Your task to perform on an android device: uninstall "WhatsApp Messenger" Image 0: 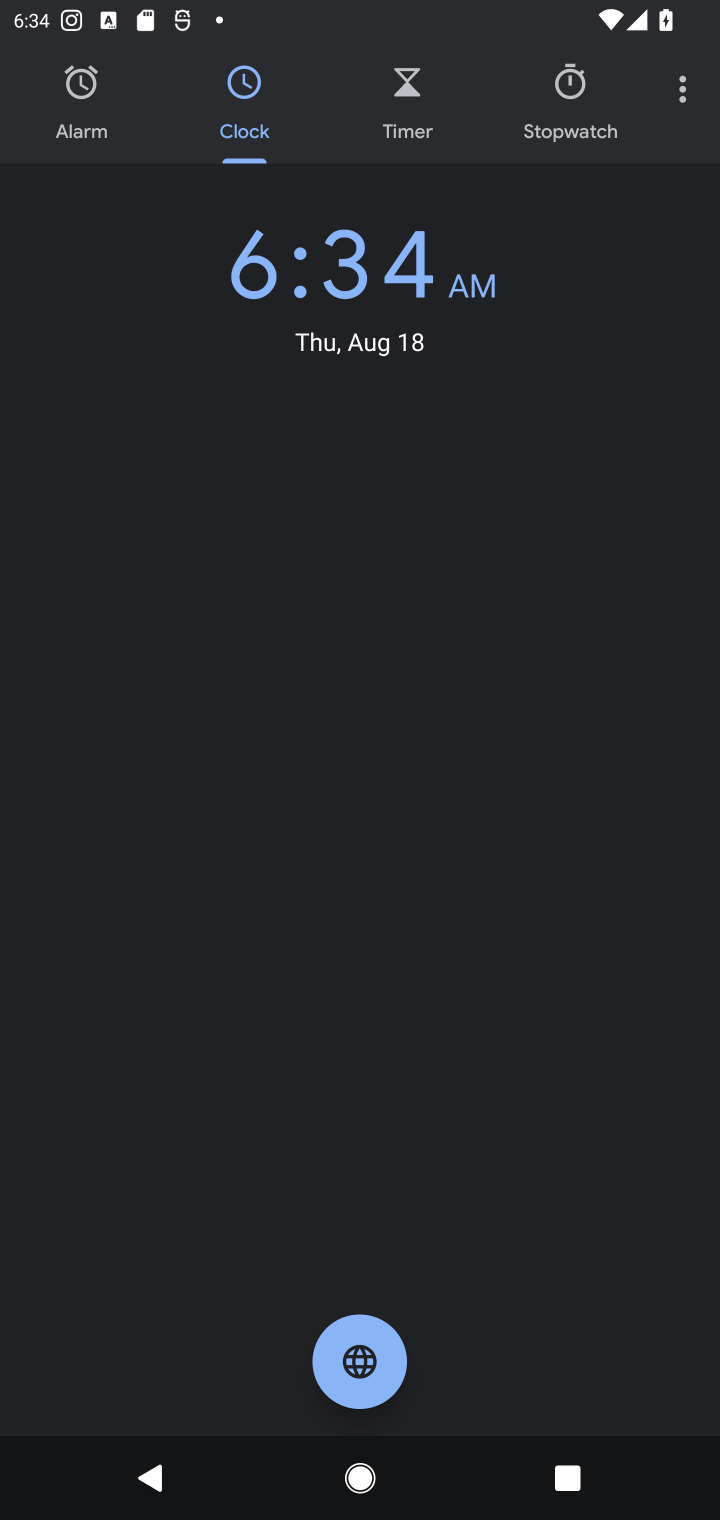
Step 0: press home button
Your task to perform on an android device: uninstall "WhatsApp Messenger" Image 1: 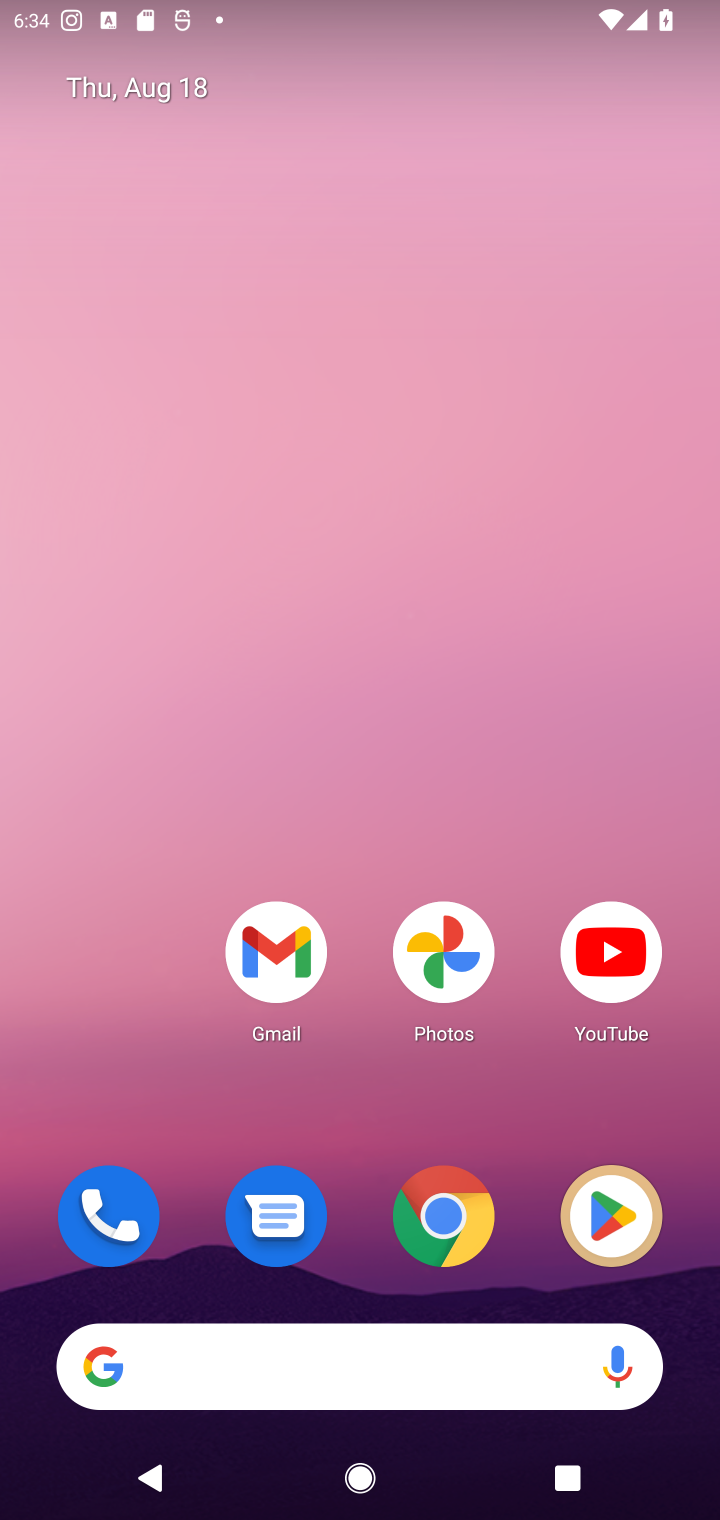
Step 1: click (589, 1192)
Your task to perform on an android device: uninstall "WhatsApp Messenger" Image 2: 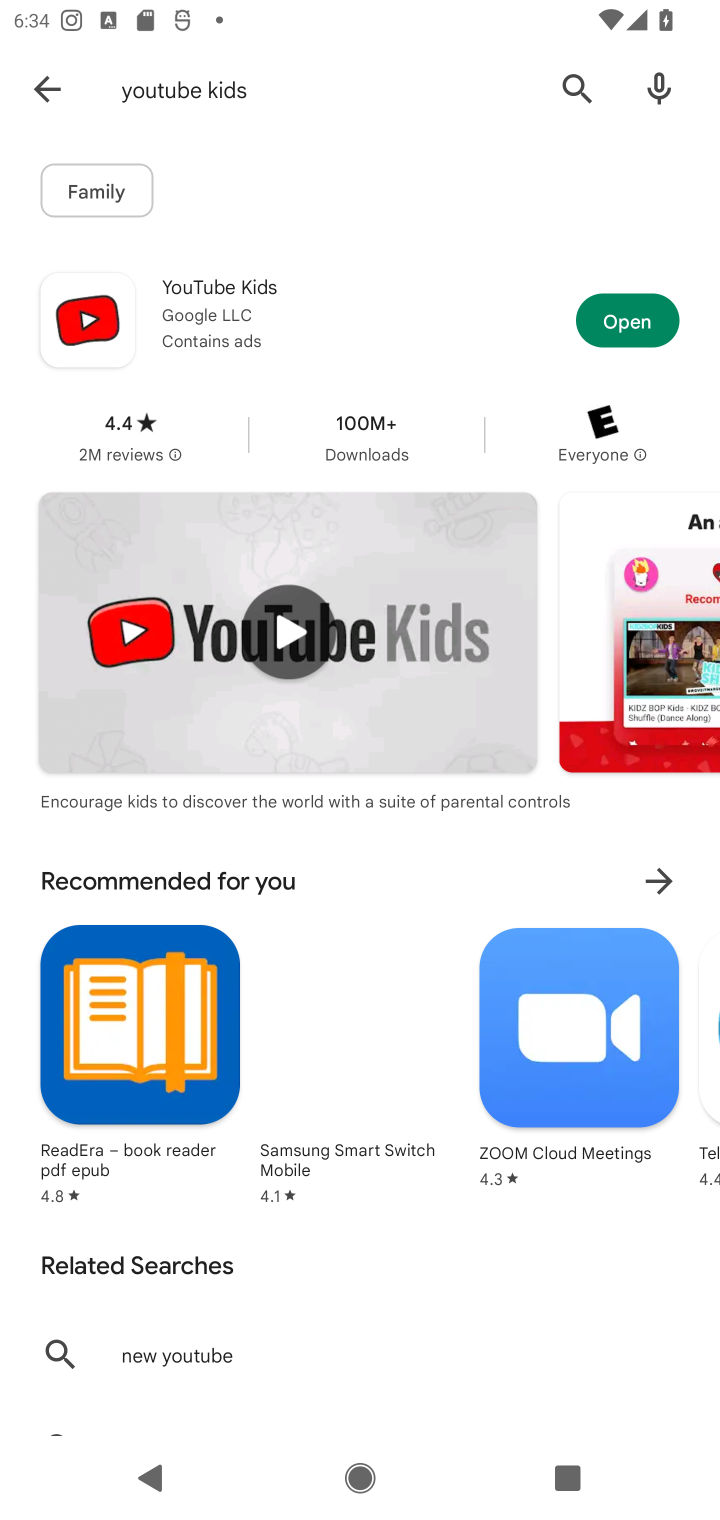
Step 2: click (592, 84)
Your task to perform on an android device: uninstall "WhatsApp Messenger" Image 3: 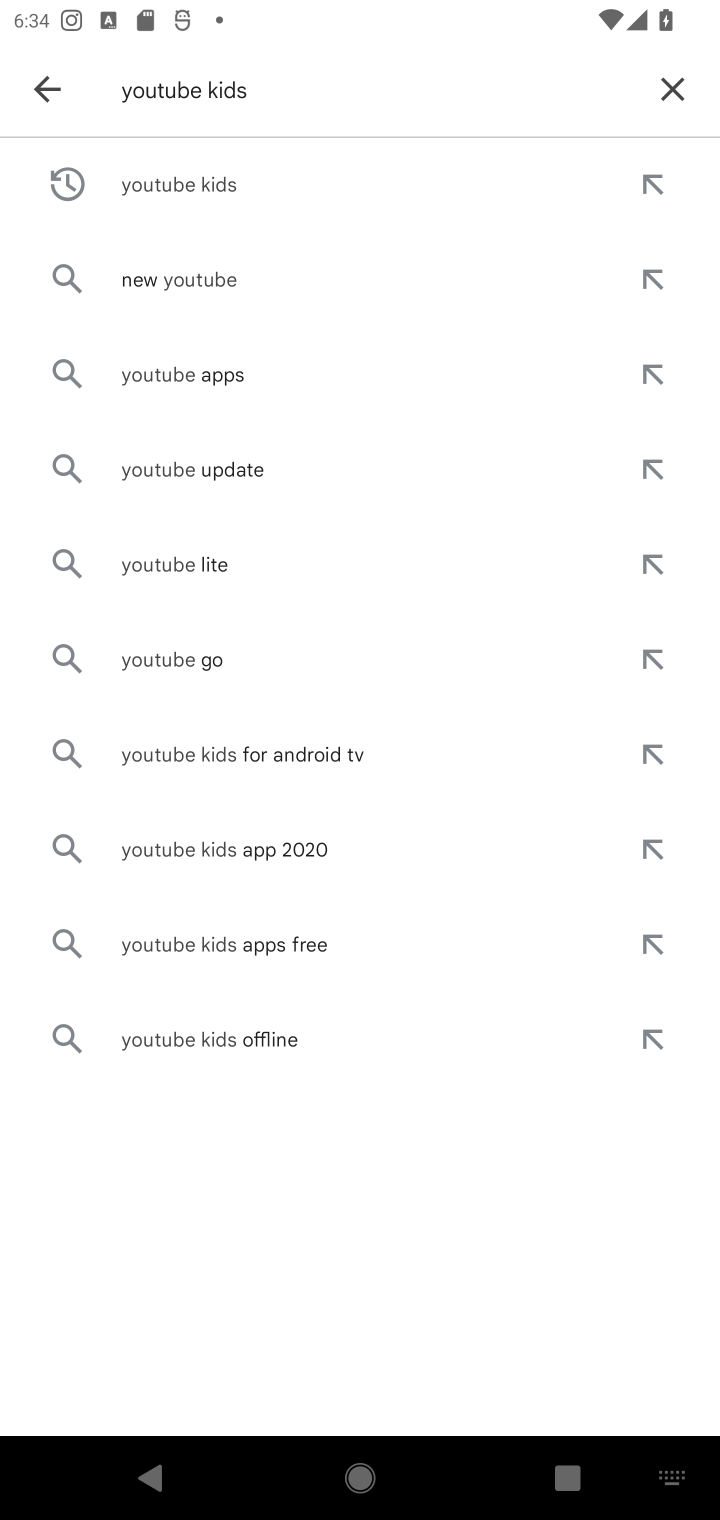
Step 3: click (656, 81)
Your task to perform on an android device: uninstall "WhatsApp Messenger" Image 4: 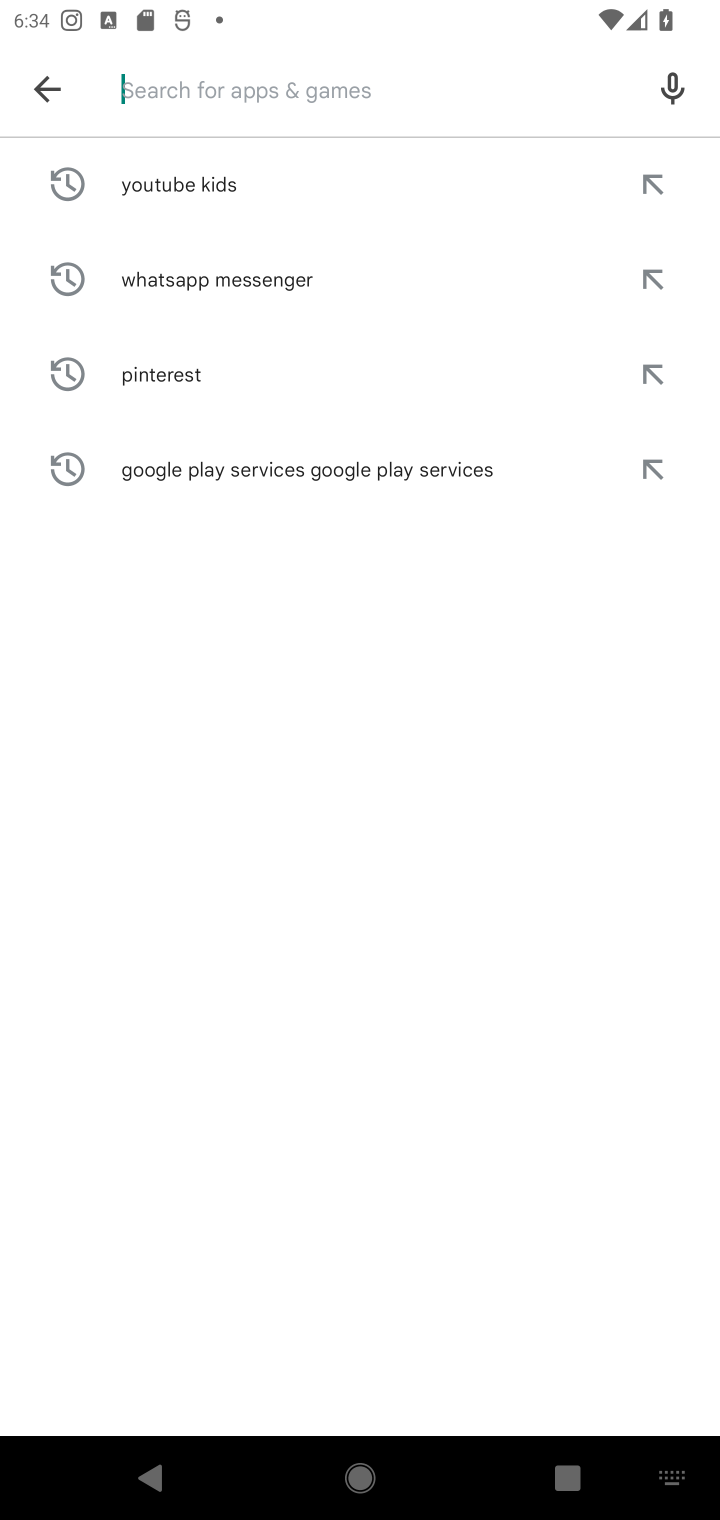
Step 4: type "WhatsApp Messenger"
Your task to perform on an android device: uninstall "WhatsApp Messenger" Image 5: 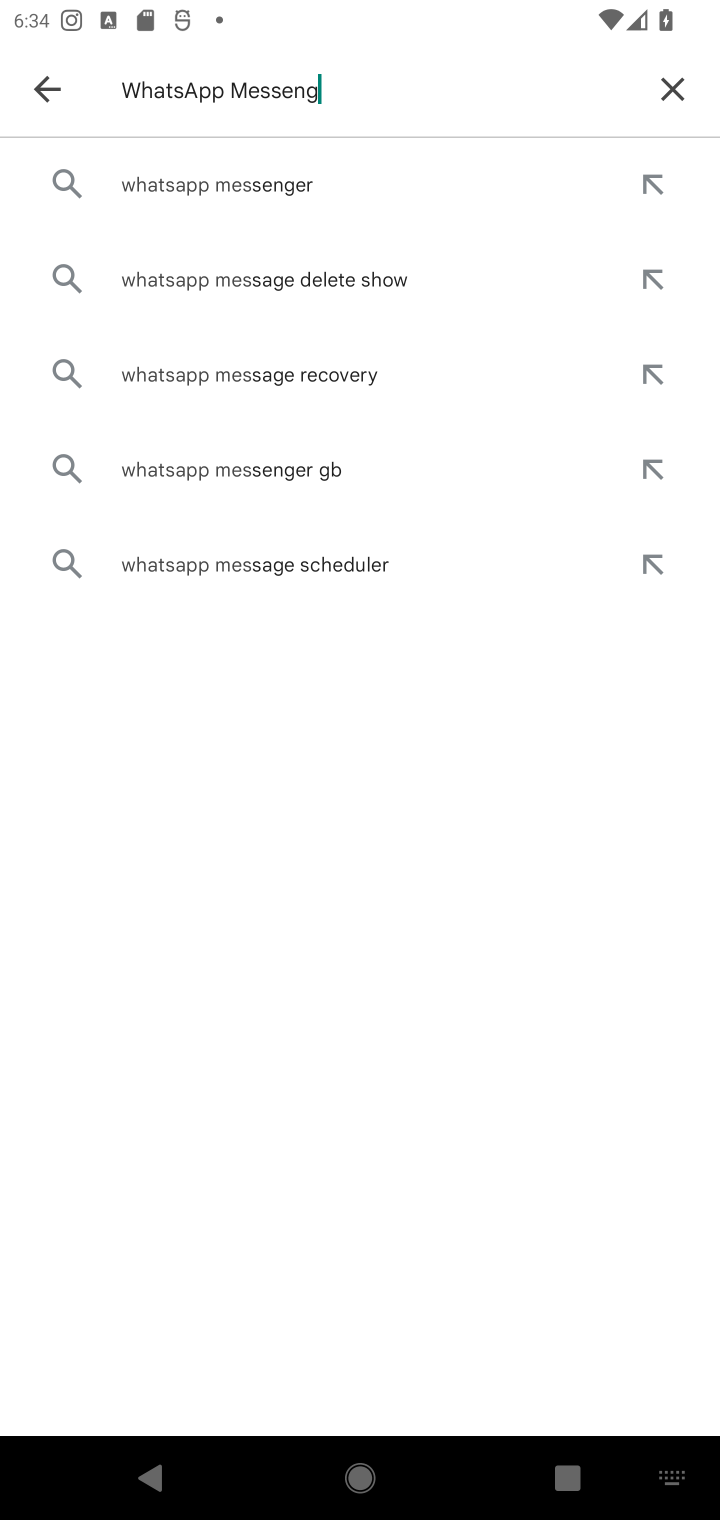
Step 5: type ""
Your task to perform on an android device: uninstall "WhatsApp Messenger" Image 6: 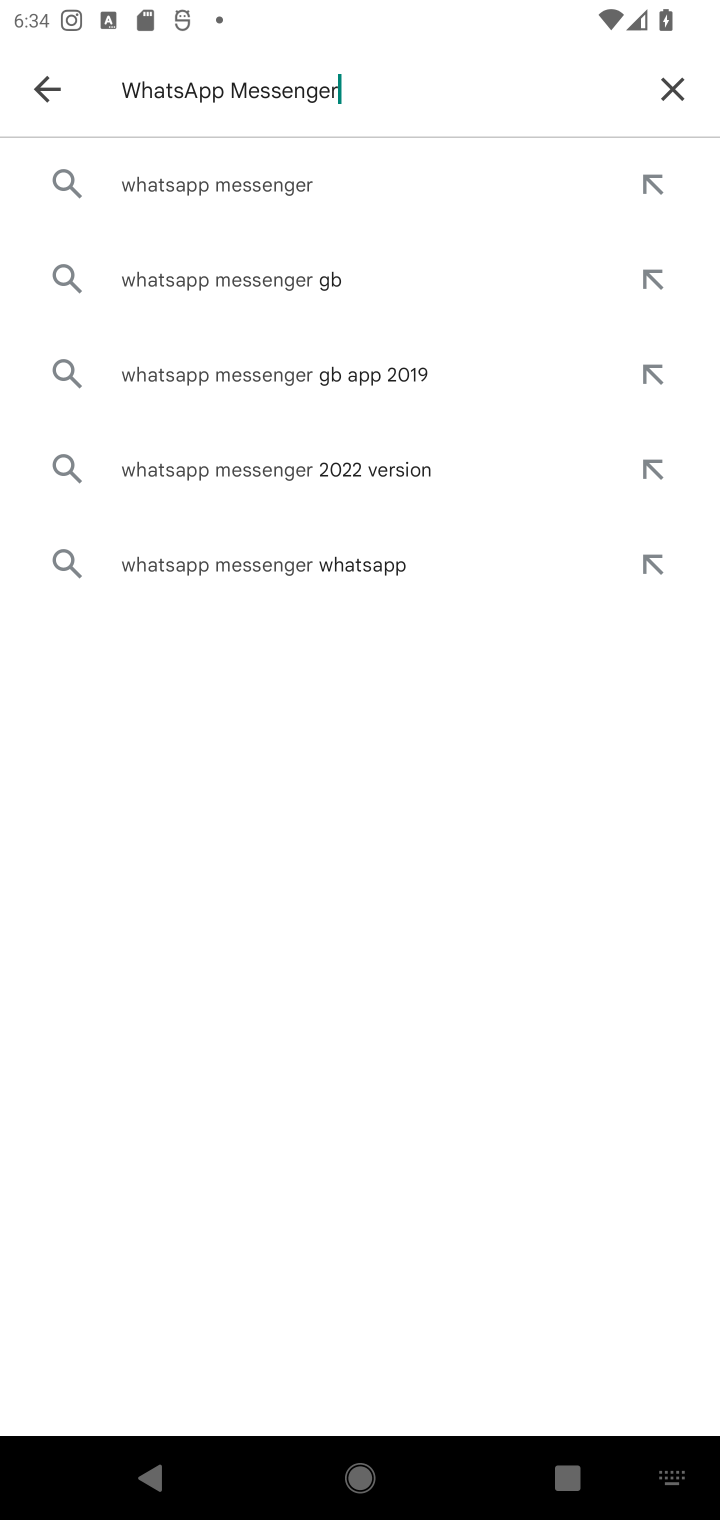
Step 6: click (289, 195)
Your task to perform on an android device: uninstall "WhatsApp Messenger" Image 7: 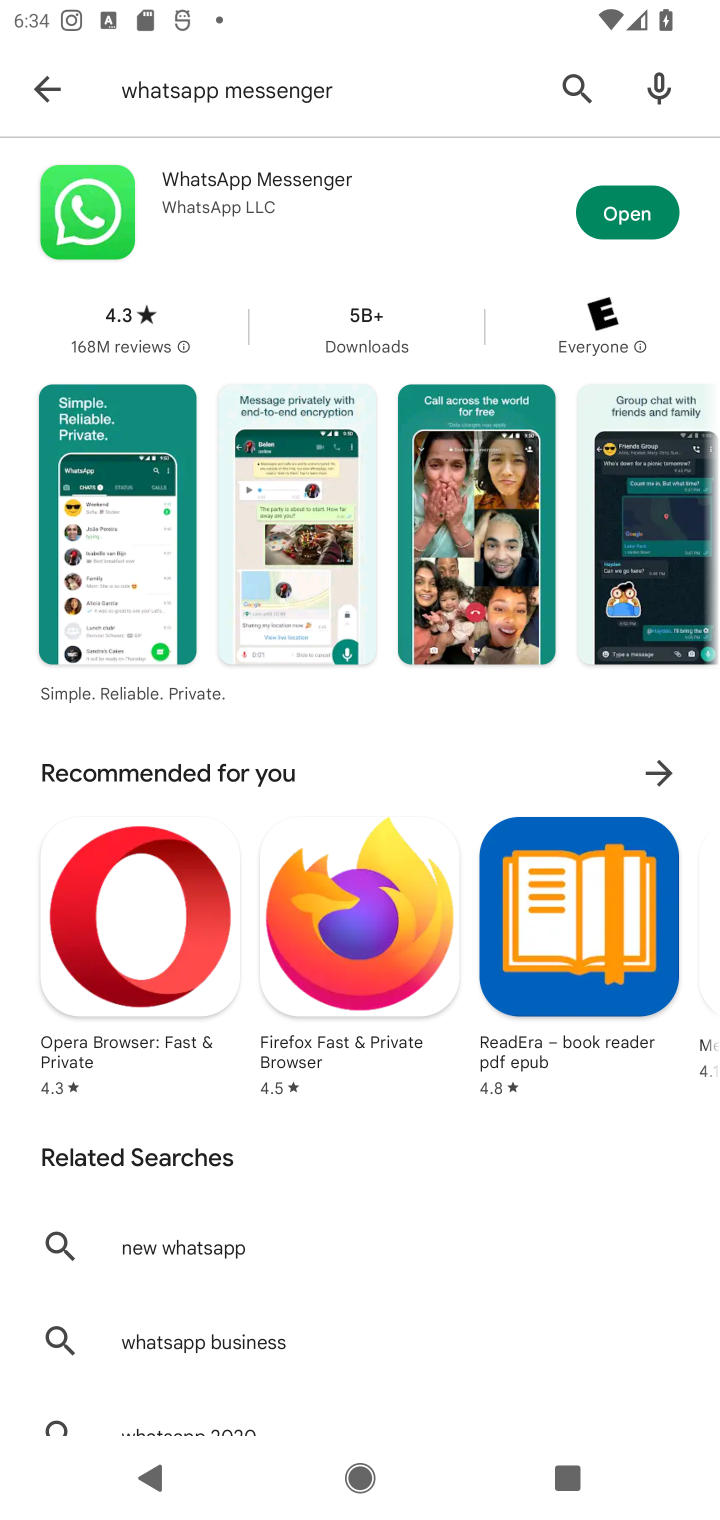
Step 7: click (361, 181)
Your task to perform on an android device: uninstall "WhatsApp Messenger" Image 8: 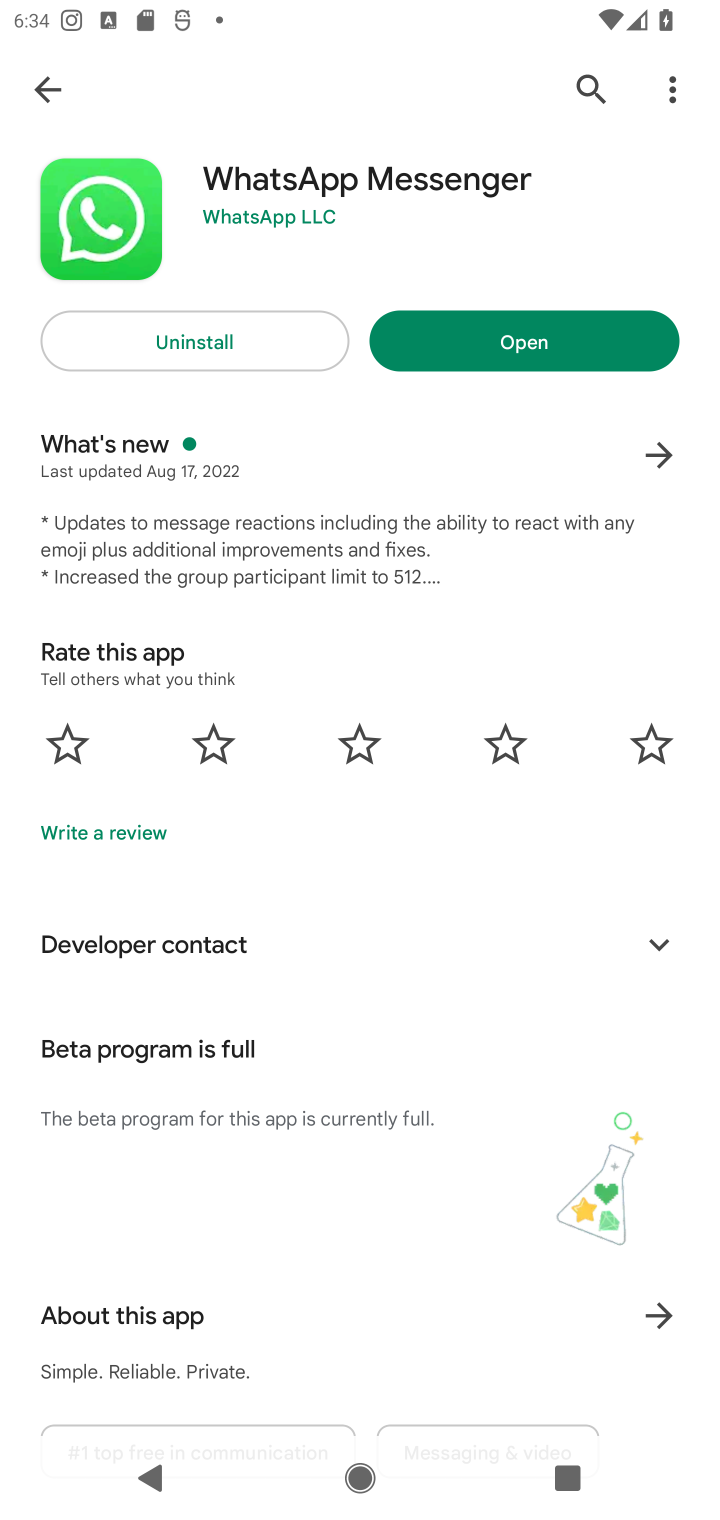
Step 8: click (202, 343)
Your task to perform on an android device: uninstall "WhatsApp Messenger" Image 9: 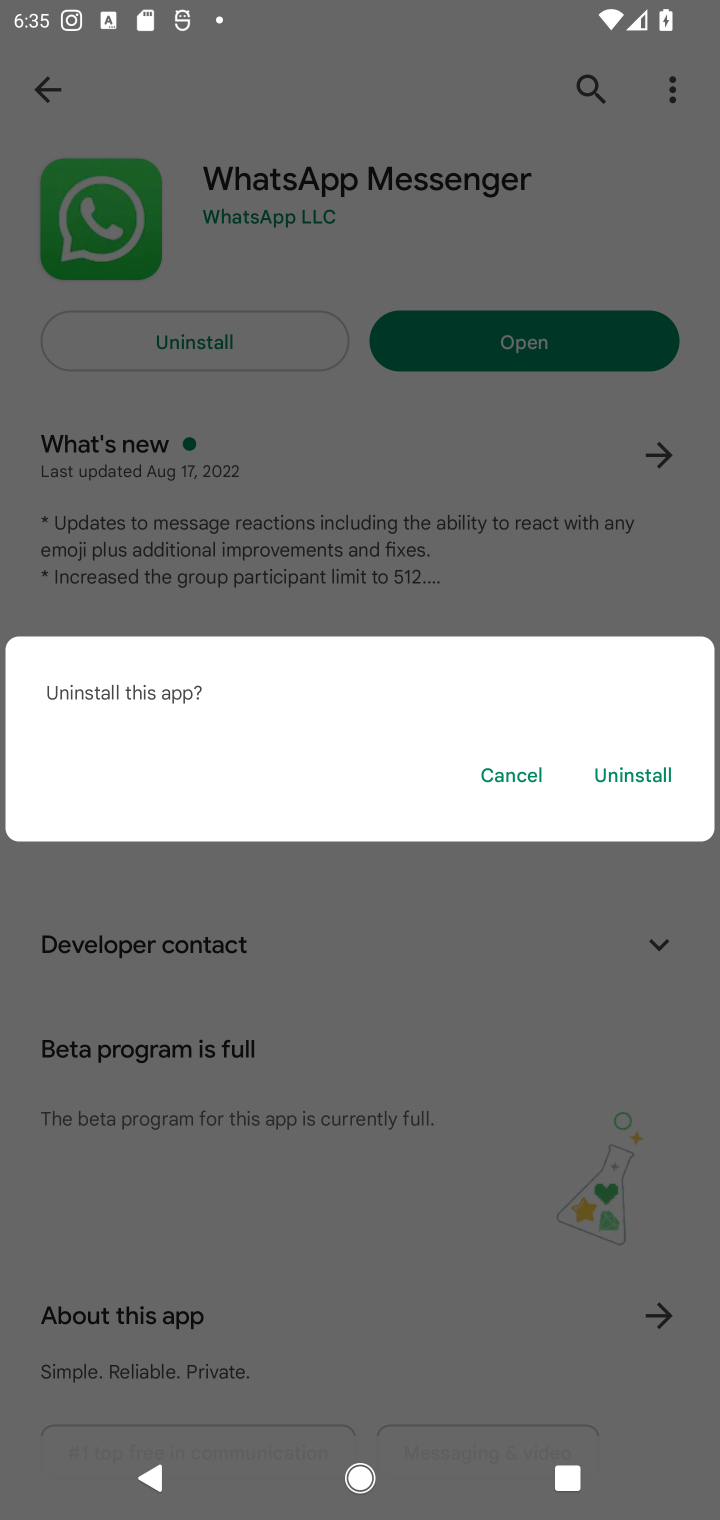
Step 9: click (614, 743)
Your task to perform on an android device: uninstall "WhatsApp Messenger" Image 10: 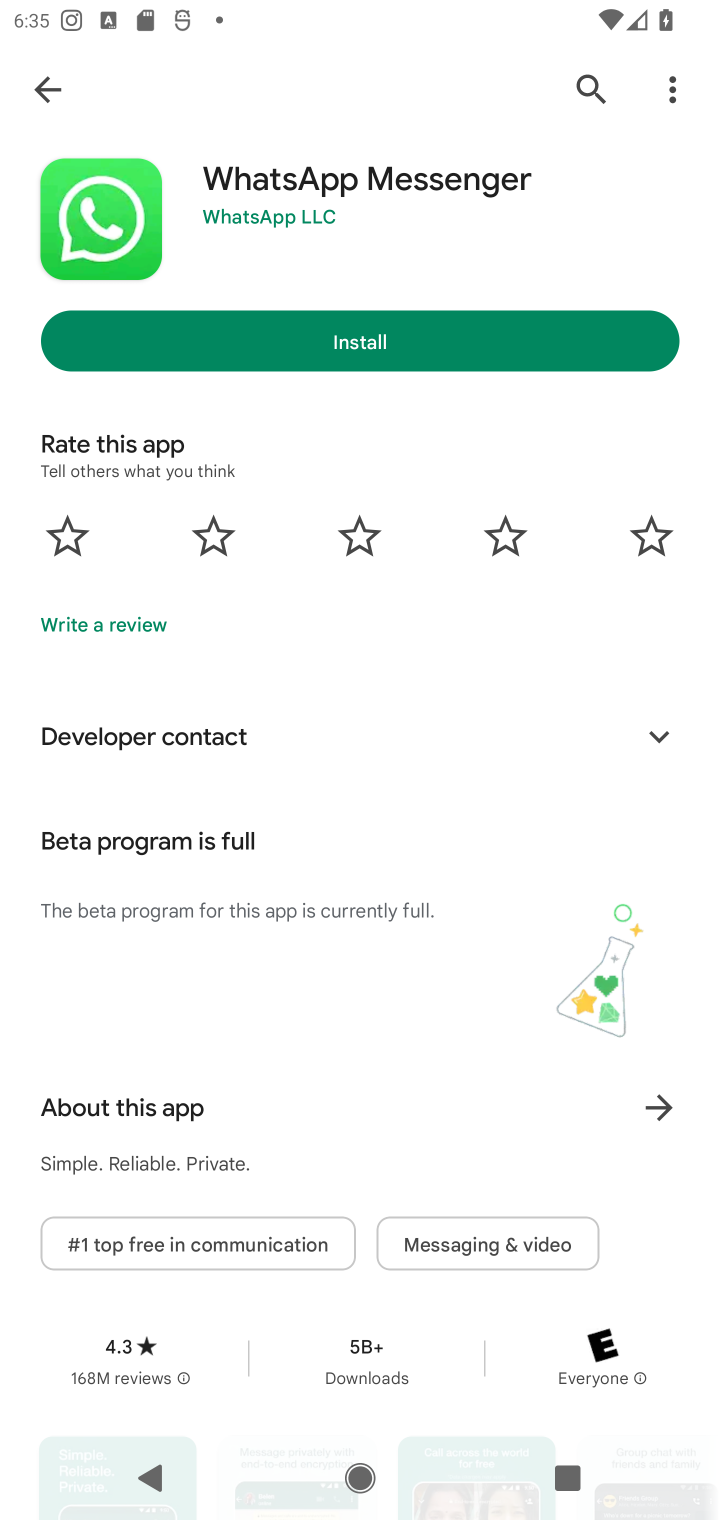
Step 10: task complete